Your task to perform on an android device: Go to internet settings Image 0: 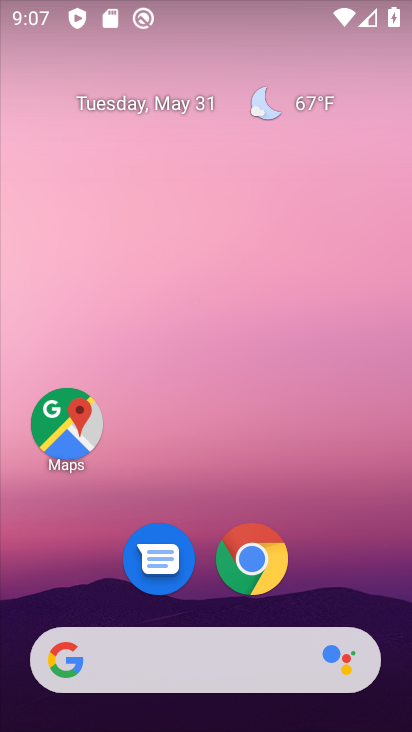
Step 0: drag from (180, 599) to (208, 59)
Your task to perform on an android device: Go to internet settings Image 1: 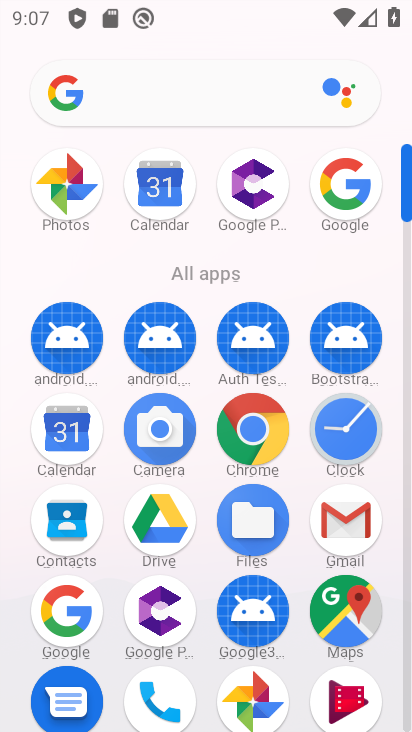
Step 1: drag from (199, 596) to (198, 287)
Your task to perform on an android device: Go to internet settings Image 2: 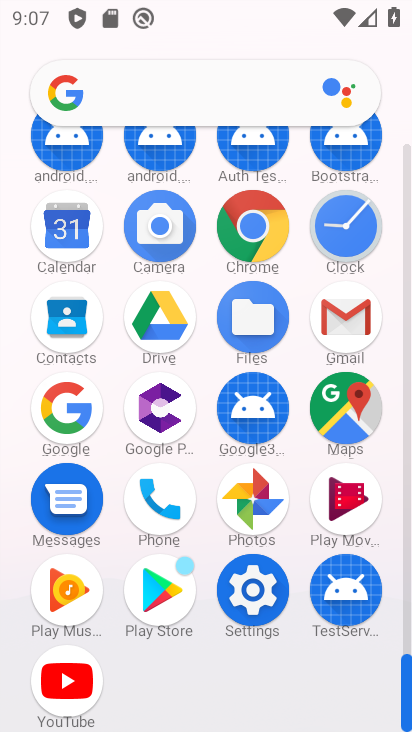
Step 2: click (245, 596)
Your task to perform on an android device: Go to internet settings Image 3: 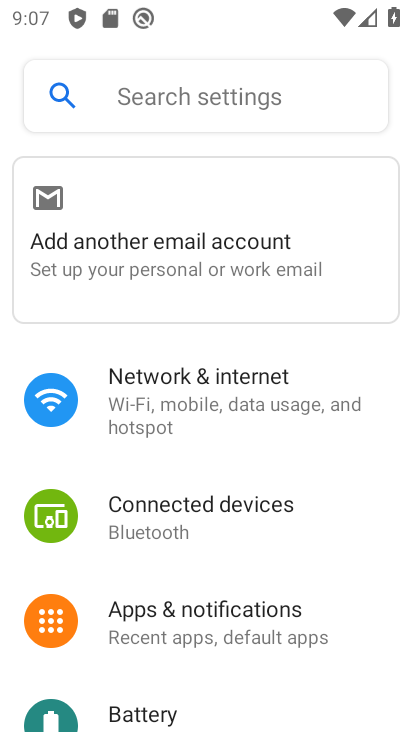
Step 3: click (212, 402)
Your task to perform on an android device: Go to internet settings Image 4: 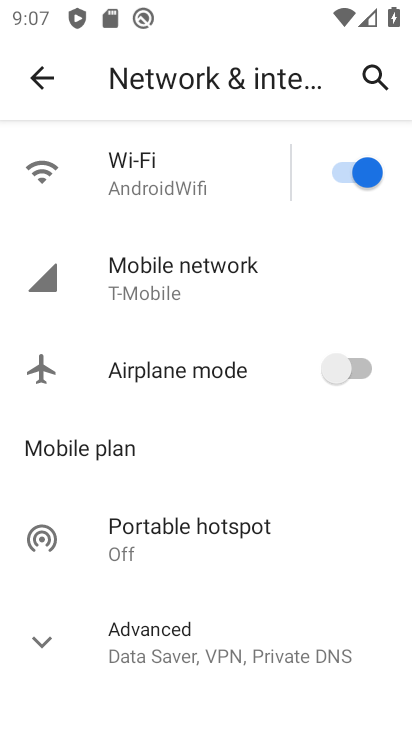
Step 4: click (189, 174)
Your task to perform on an android device: Go to internet settings Image 5: 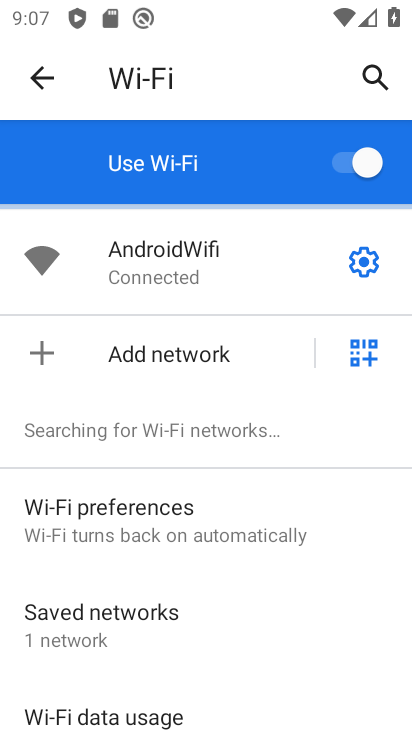
Step 5: click (178, 266)
Your task to perform on an android device: Go to internet settings Image 6: 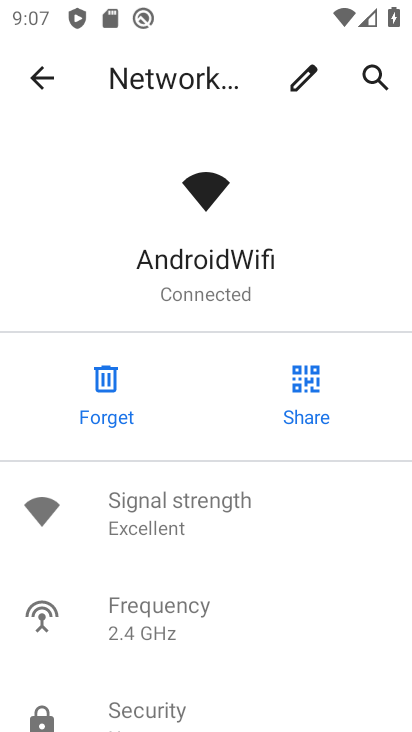
Step 6: task complete